Your task to perform on an android device: Go to settings Image 0: 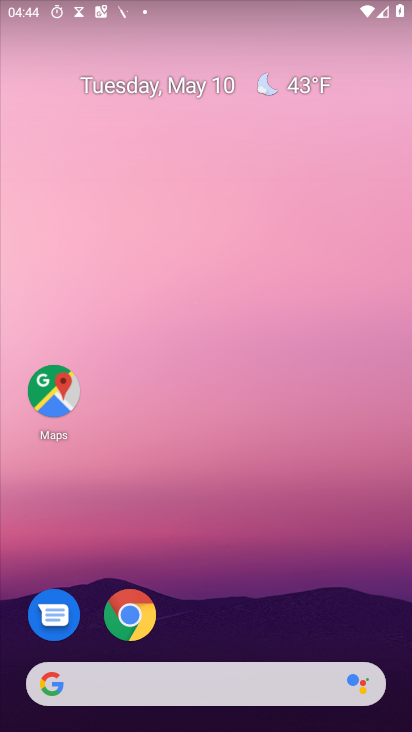
Step 0: drag from (285, 661) to (279, 53)
Your task to perform on an android device: Go to settings Image 1: 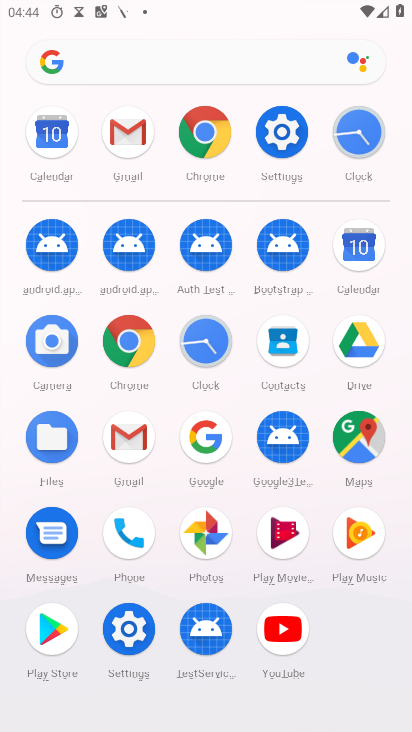
Step 1: click (284, 140)
Your task to perform on an android device: Go to settings Image 2: 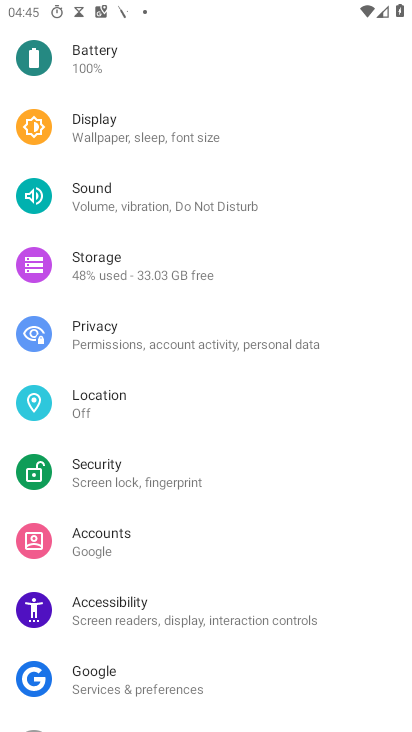
Step 2: task complete